Your task to perform on an android device: Open calendar and show me the third week of next month Image 0: 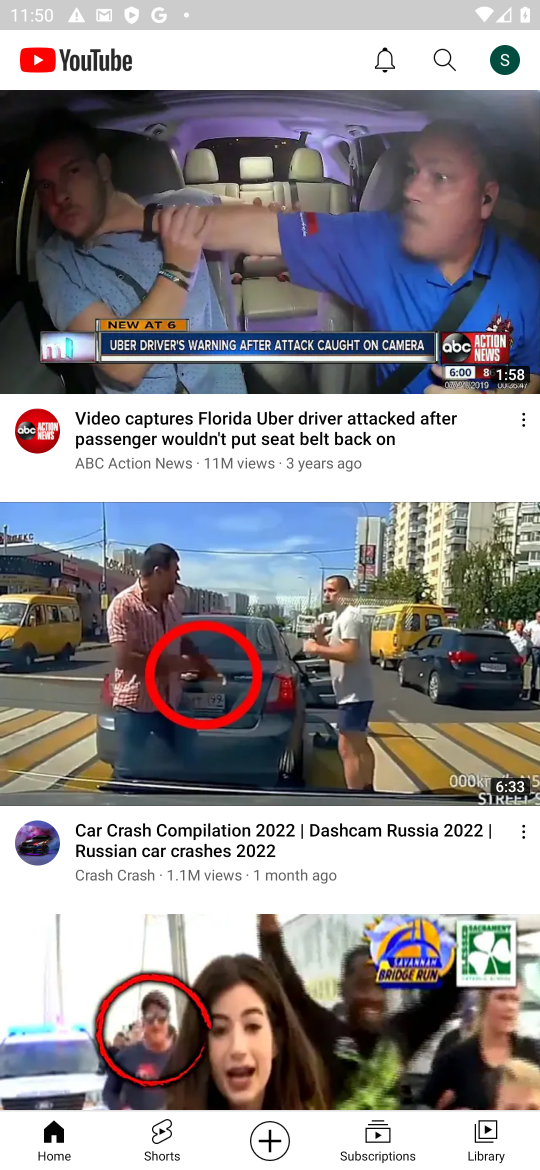
Step 0: press home button
Your task to perform on an android device: Open calendar and show me the third week of next month Image 1: 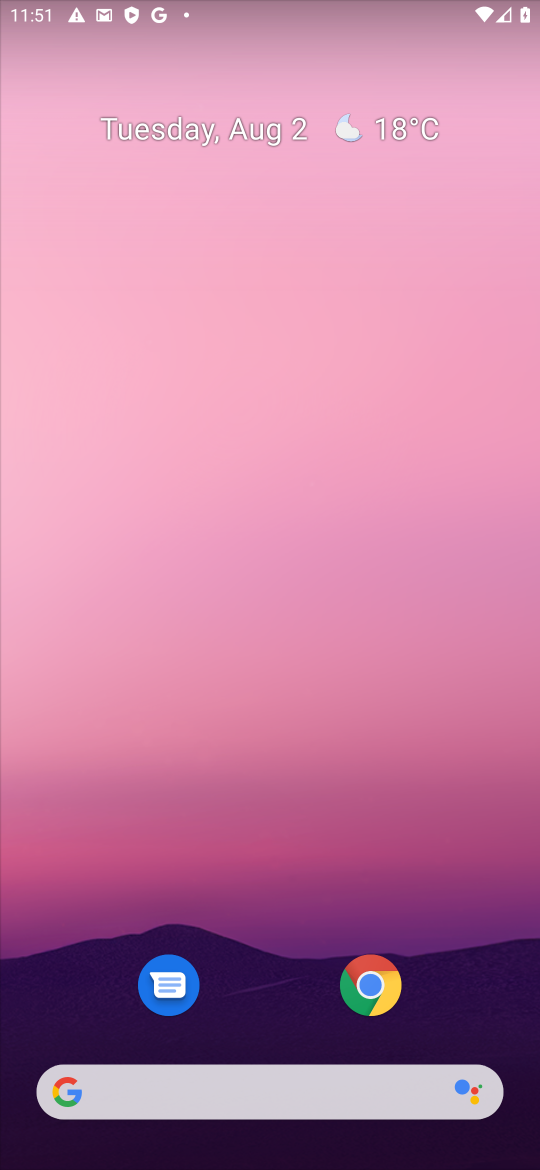
Step 1: task complete